Your task to perform on an android device: turn notification dots on Image 0: 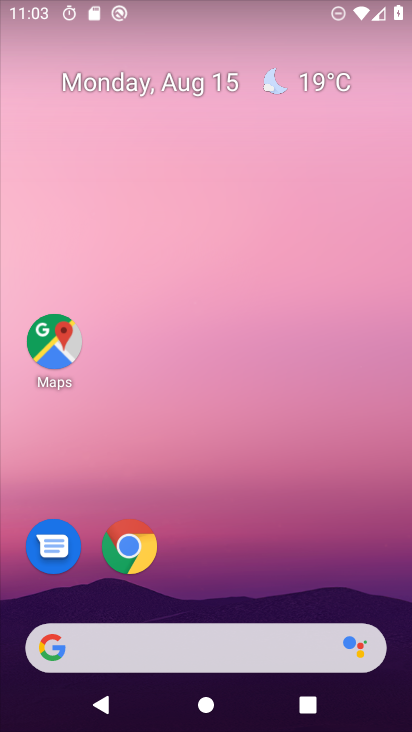
Step 0: drag from (246, 613) to (192, 8)
Your task to perform on an android device: turn notification dots on Image 1: 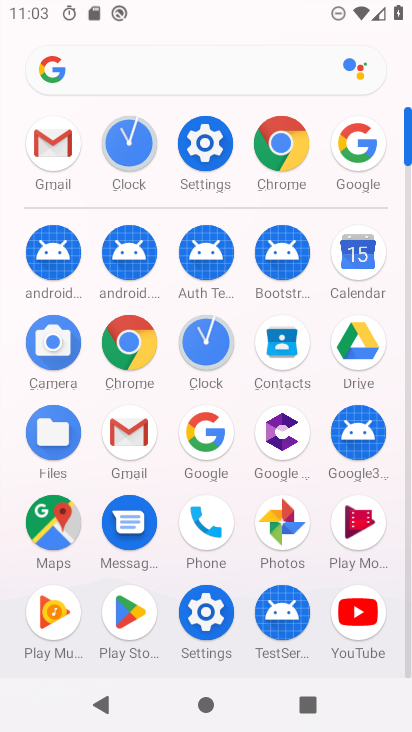
Step 1: click (207, 135)
Your task to perform on an android device: turn notification dots on Image 2: 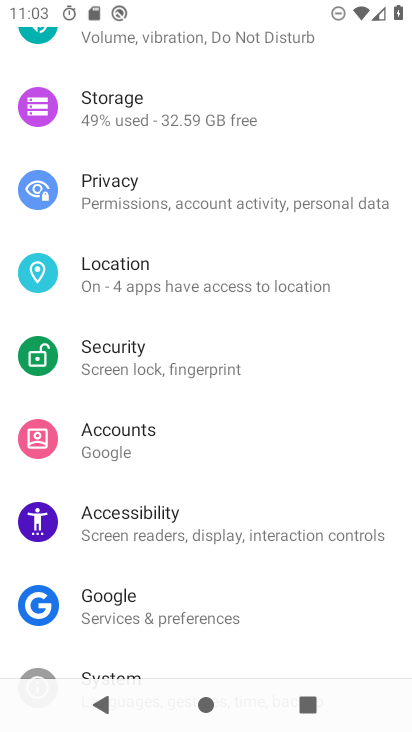
Step 2: drag from (180, 392) to (207, 613)
Your task to perform on an android device: turn notification dots on Image 3: 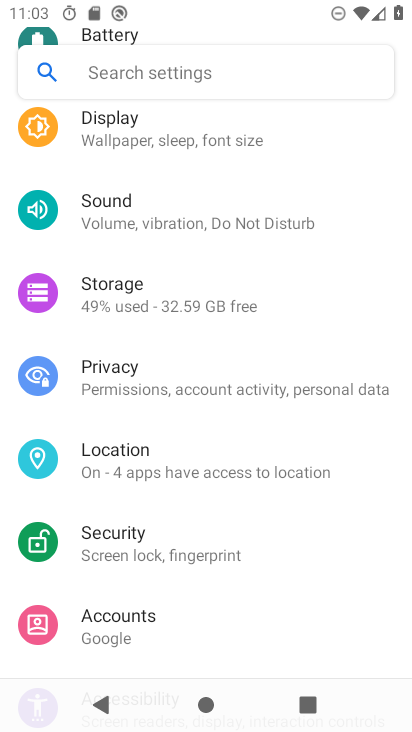
Step 3: drag from (170, 187) to (159, 568)
Your task to perform on an android device: turn notification dots on Image 4: 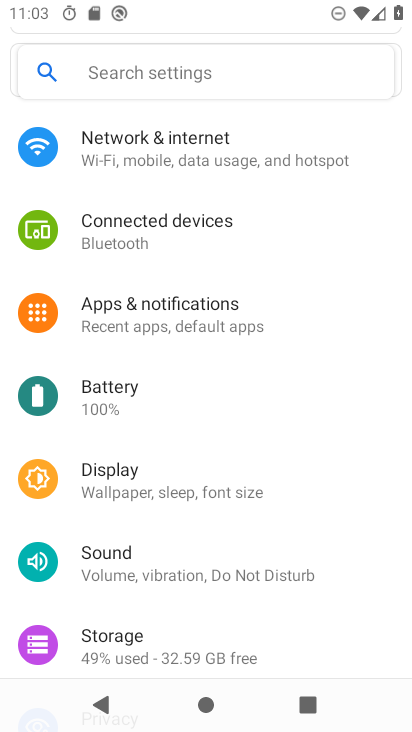
Step 4: click (166, 312)
Your task to perform on an android device: turn notification dots on Image 5: 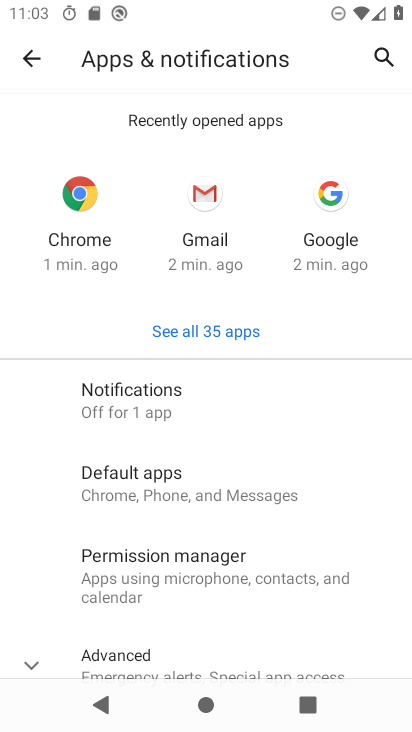
Step 5: click (114, 397)
Your task to perform on an android device: turn notification dots on Image 6: 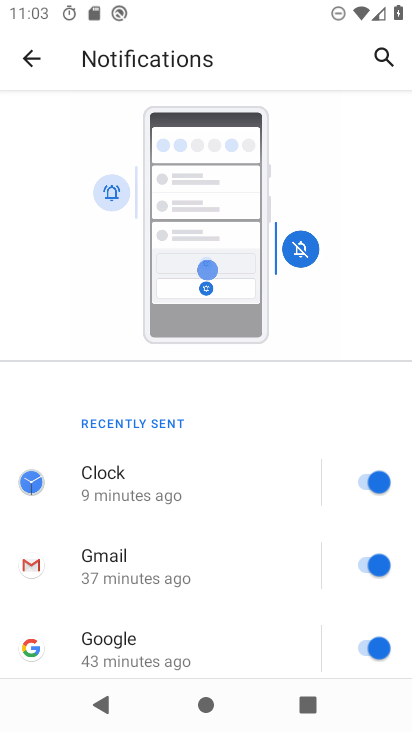
Step 6: drag from (189, 669) to (190, 254)
Your task to perform on an android device: turn notification dots on Image 7: 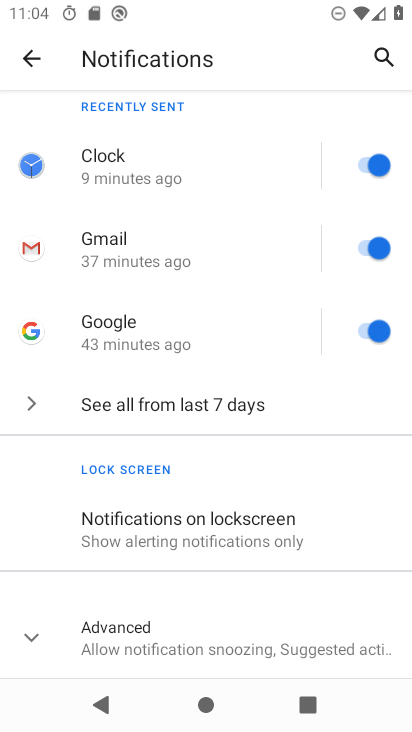
Step 7: click (177, 653)
Your task to perform on an android device: turn notification dots on Image 8: 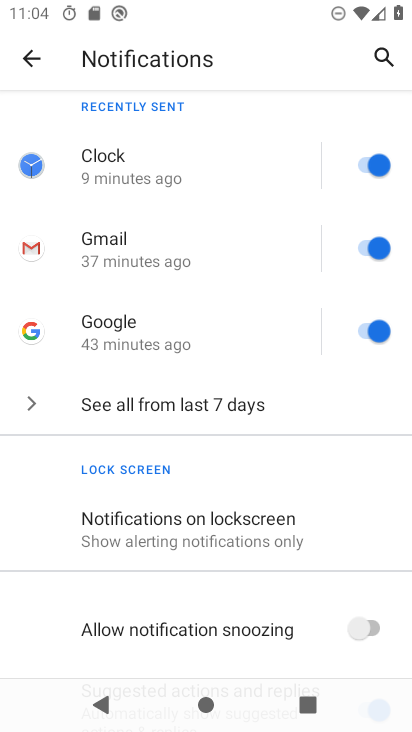
Step 8: task complete